Your task to perform on an android device: Show me productivity apps on the Play Store Image 0: 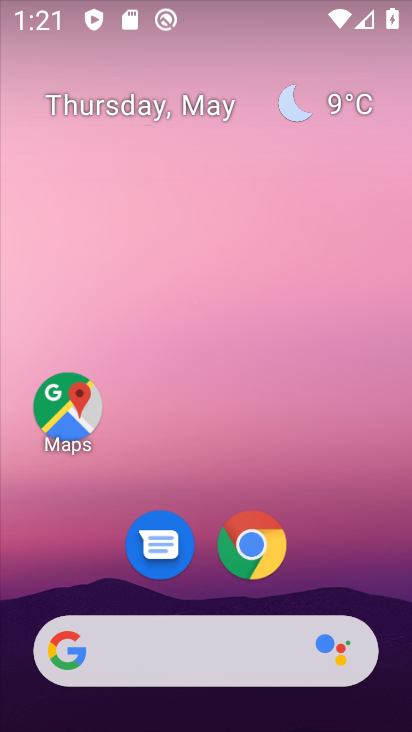
Step 0: drag from (403, 638) to (328, 148)
Your task to perform on an android device: Show me productivity apps on the Play Store Image 1: 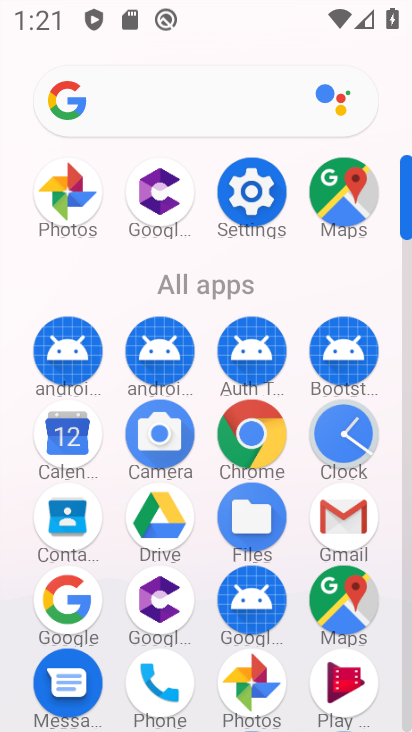
Step 1: click (407, 695)
Your task to perform on an android device: Show me productivity apps on the Play Store Image 2: 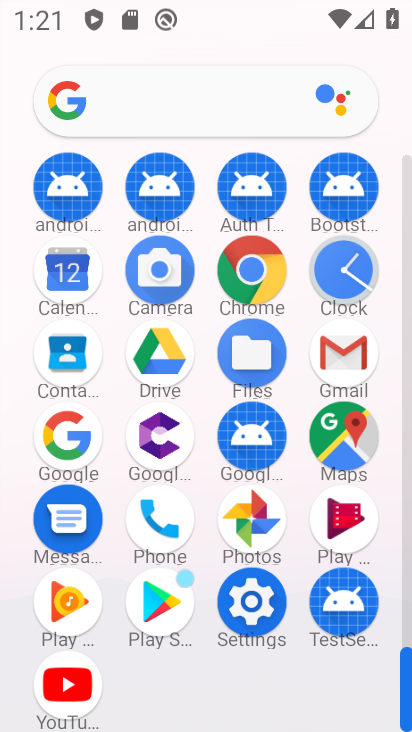
Step 2: click (157, 596)
Your task to perform on an android device: Show me productivity apps on the Play Store Image 3: 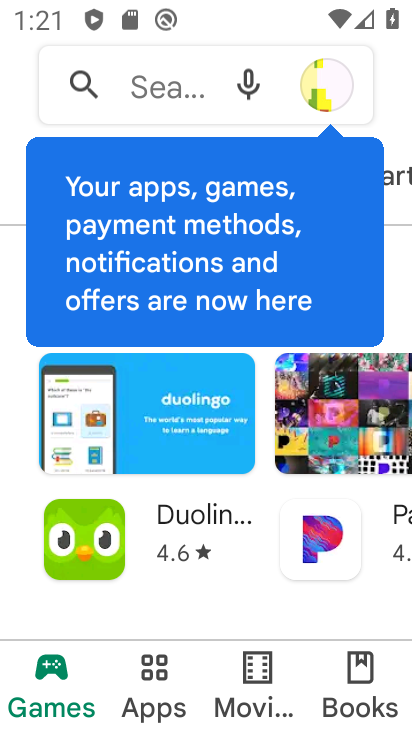
Step 3: click (159, 674)
Your task to perform on an android device: Show me productivity apps on the Play Store Image 4: 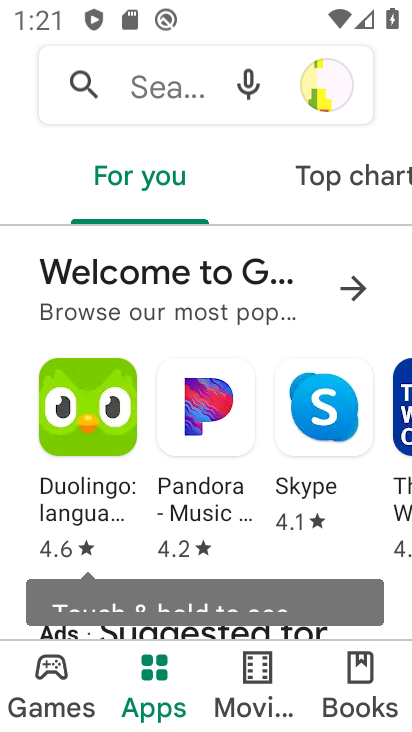
Step 4: drag from (389, 186) to (25, 180)
Your task to perform on an android device: Show me productivity apps on the Play Store Image 5: 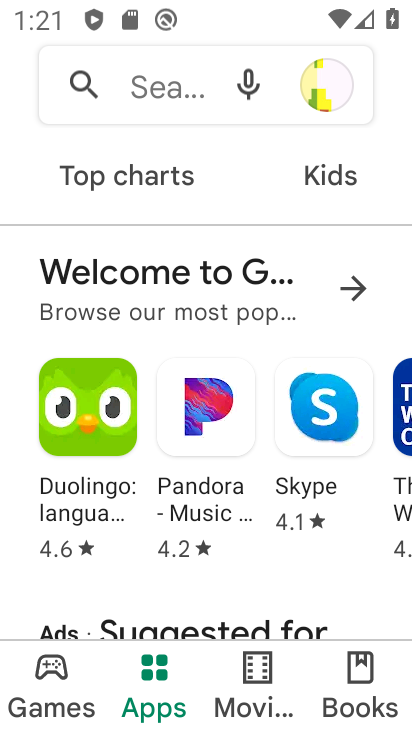
Step 5: drag from (371, 178) to (17, 197)
Your task to perform on an android device: Show me productivity apps on the Play Store Image 6: 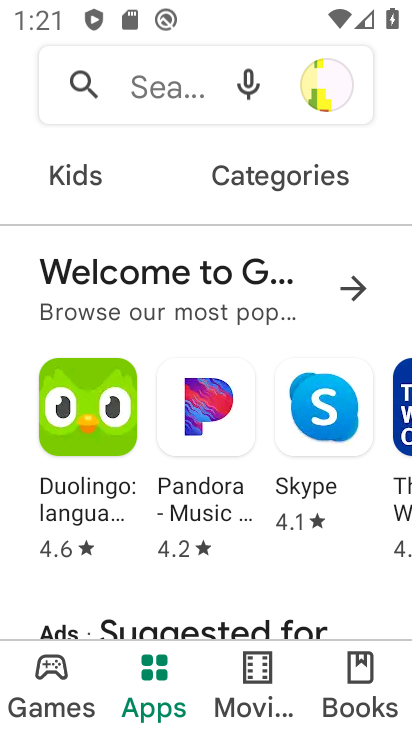
Step 6: click (276, 174)
Your task to perform on an android device: Show me productivity apps on the Play Store Image 7: 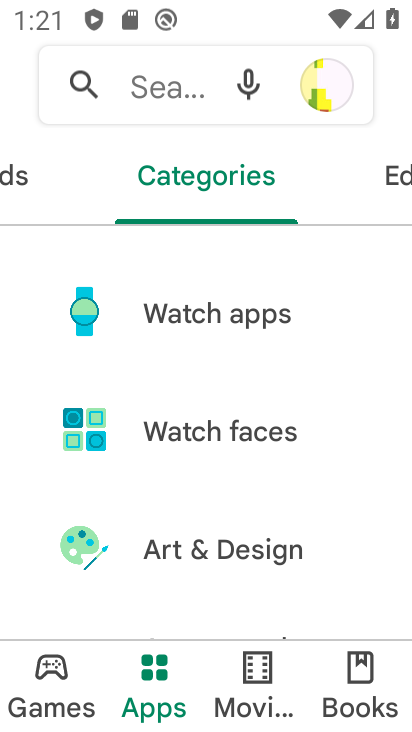
Step 7: drag from (197, 595) to (270, 136)
Your task to perform on an android device: Show me productivity apps on the Play Store Image 8: 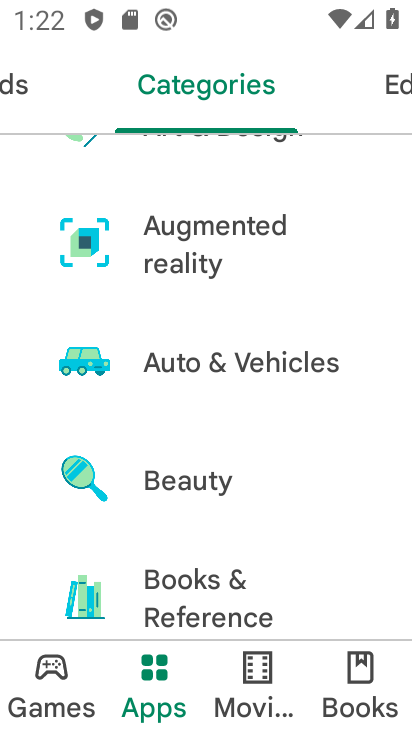
Step 8: drag from (320, 607) to (334, 115)
Your task to perform on an android device: Show me productivity apps on the Play Store Image 9: 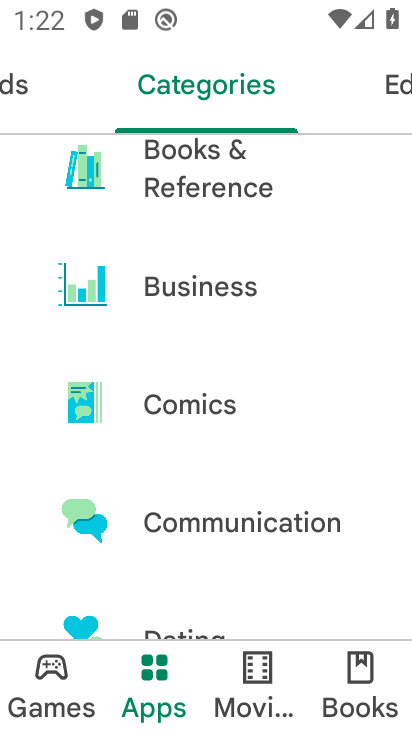
Step 9: drag from (330, 562) to (325, 54)
Your task to perform on an android device: Show me productivity apps on the Play Store Image 10: 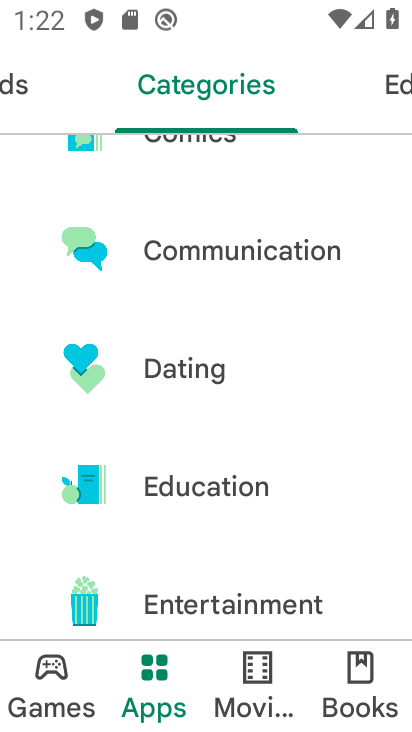
Step 10: drag from (323, 574) to (299, 207)
Your task to perform on an android device: Show me productivity apps on the Play Store Image 11: 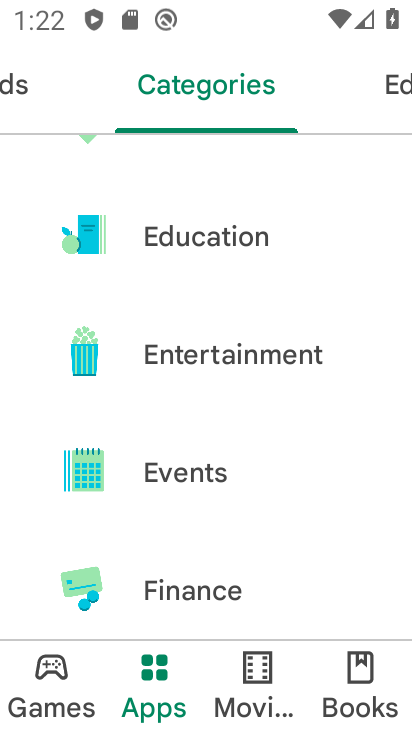
Step 11: drag from (296, 613) to (308, 175)
Your task to perform on an android device: Show me productivity apps on the Play Store Image 12: 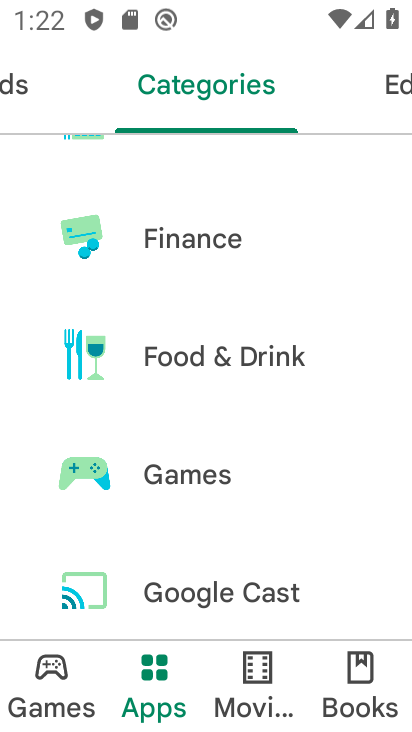
Step 12: drag from (299, 589) to (300, 137)
Your task to perform on an android device: Show me productivity apps on the Play Store Image 13: 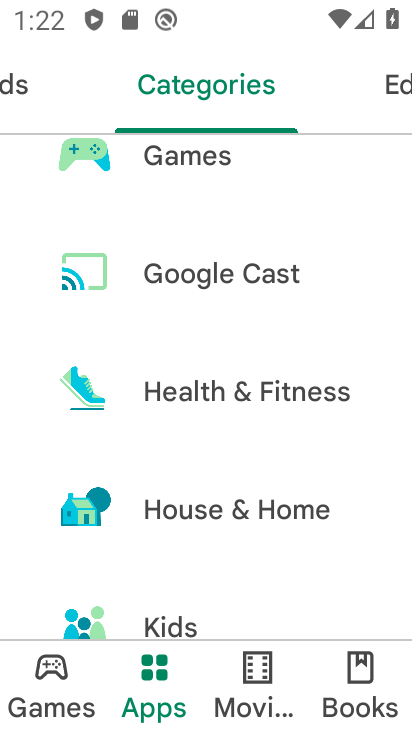
Step 13: drag from (300, 261) to (306, 140)
Your task to perform on an android device: Show me productivity apps on the Play Store Image 14: 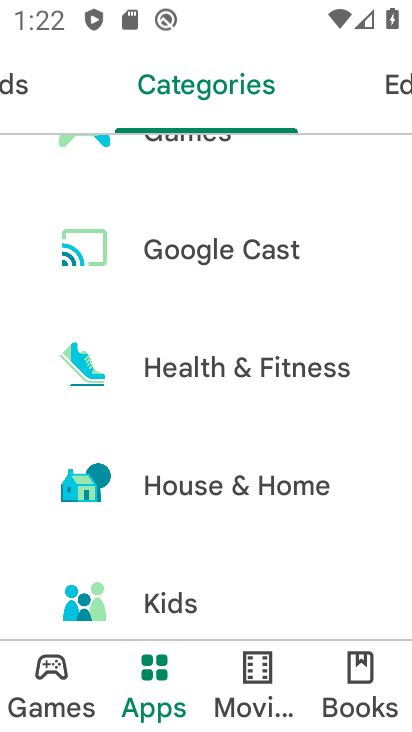
Step 14: drag from (274, 590) to (340, 131)
Your task to perform on an android device: Show me productivity apps on the Play Store Image 15: 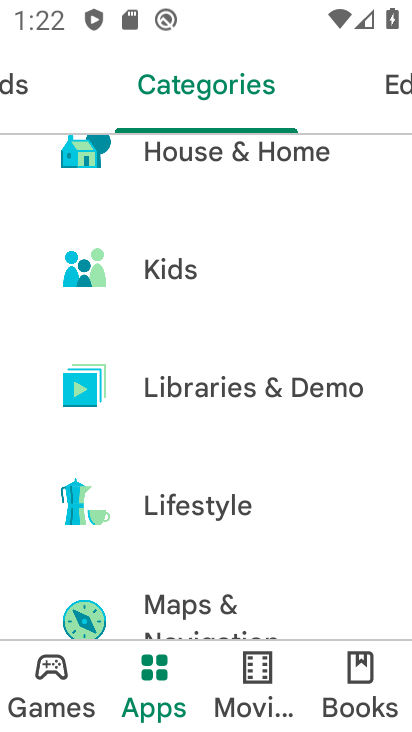
Step 15: drag from (320, 562) to (368, 95)
Your task to perform on an android device: Show me productivity apps on the Play Store Image 16: 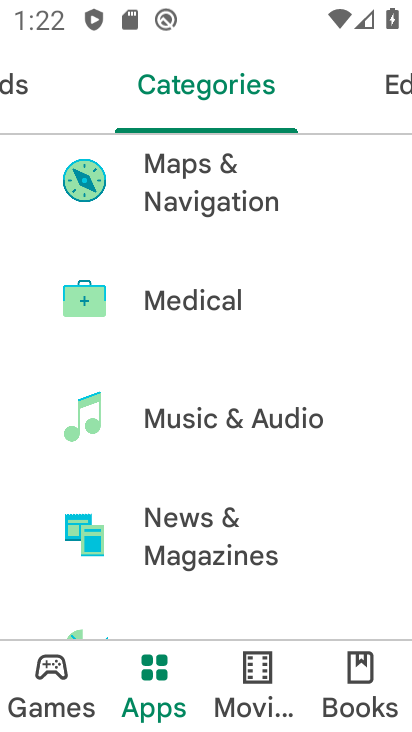
Step 16: drag from (317, 619) to (305, 93)
Your task to perform on an android device: Show me productivity apps on the Play Store Image 17: 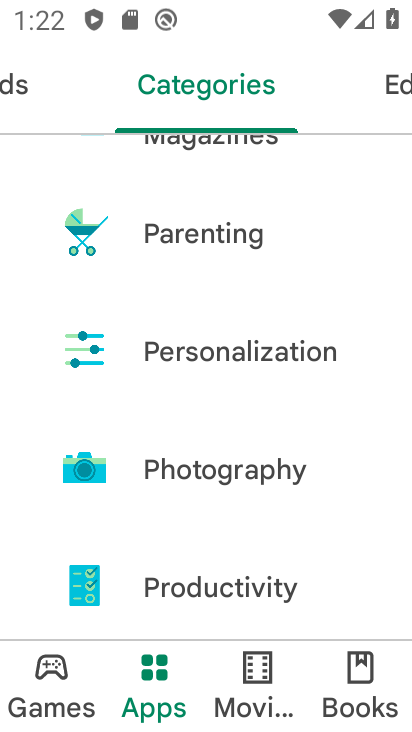
Step 17: click (164, 577)
Your task to perform on an android device: Show me productivity apps on the Play Store Image 18: 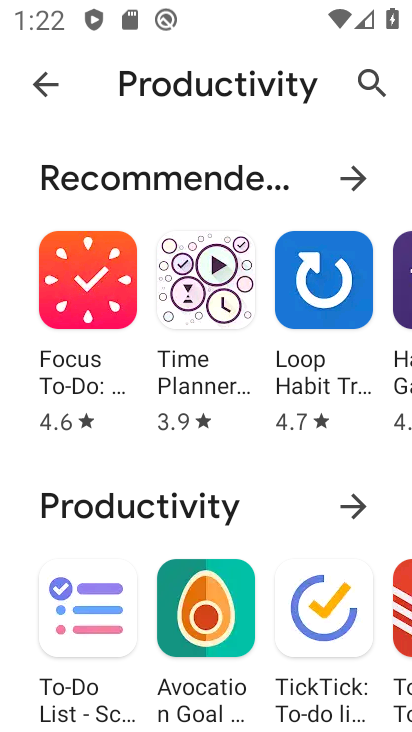
Step 18: drag from (278, 501) to (273, 309)
Your task to perform on an android device: Show me productivity apps on the Play Store Image 19: 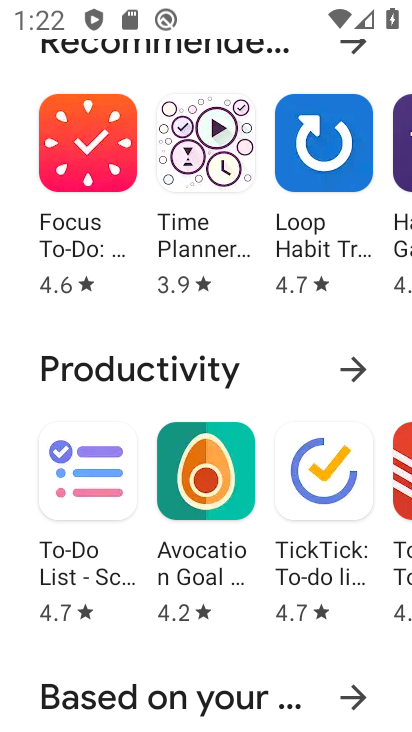
Step 19: click (360, 365)
Your task to perform on an android device: Show me productivity apps on the Play Store Image 20: 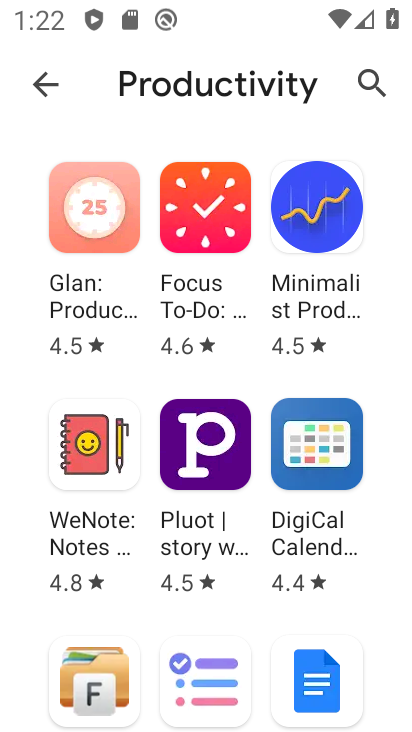
Step 20: task complete